Your task to perform on an android device: turn notification dots off Image 0: 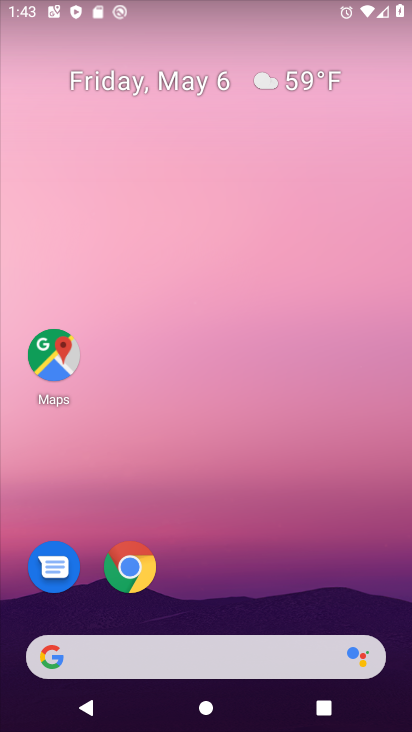
Step 0: drag from (253, 618) to (228, 29)
Your task to perform on an android device: turn notification dots off Image 1: 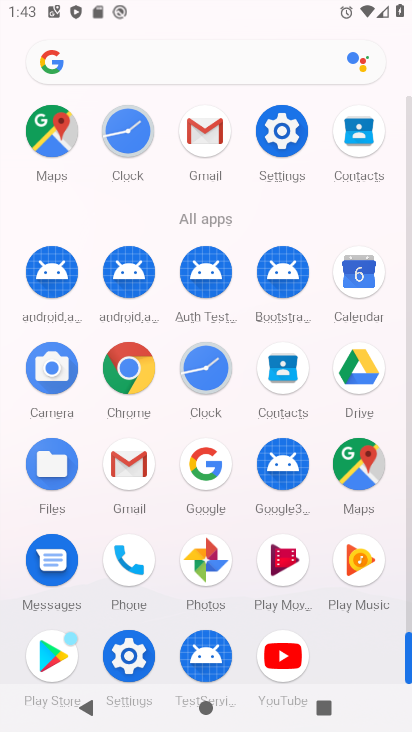
Step 1: click (113, 665)
Your task to perform on an android device: turn notification dots off Image 2: 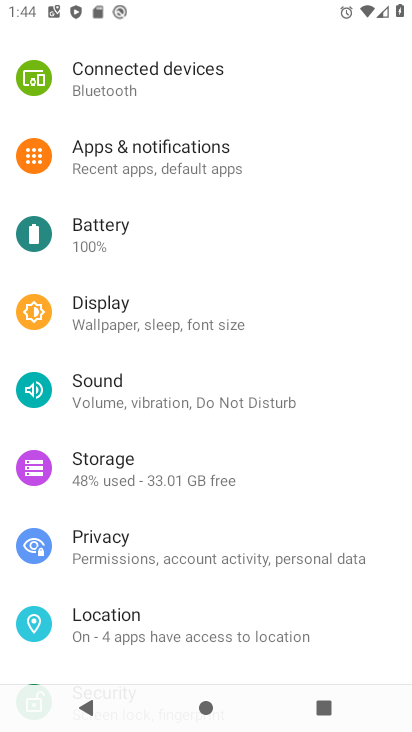
Step 2: drag from (271, 133) to (255, 415)
Your task to perform on an android device: turn notification dots off Image 3: 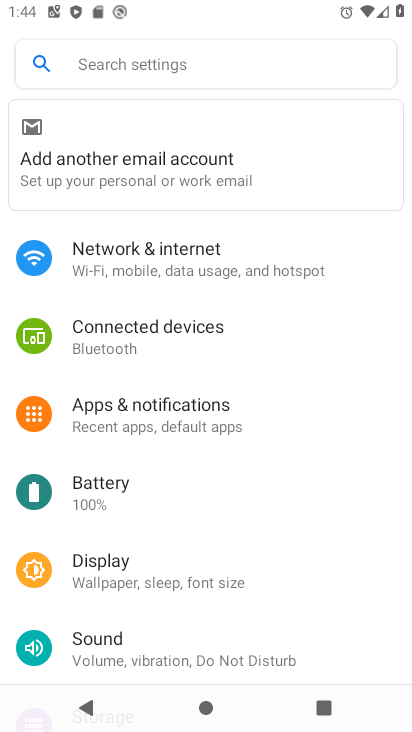
Step 3: click (200, 411)
Your task to perform on an android device: turn notification dots off Image 4: 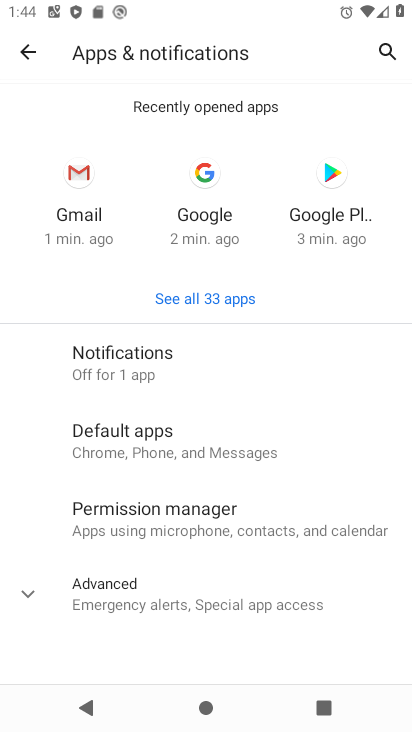
Step 4: click (148, 594)
Your task to perform on an android device: turn notification dots off Image 5: 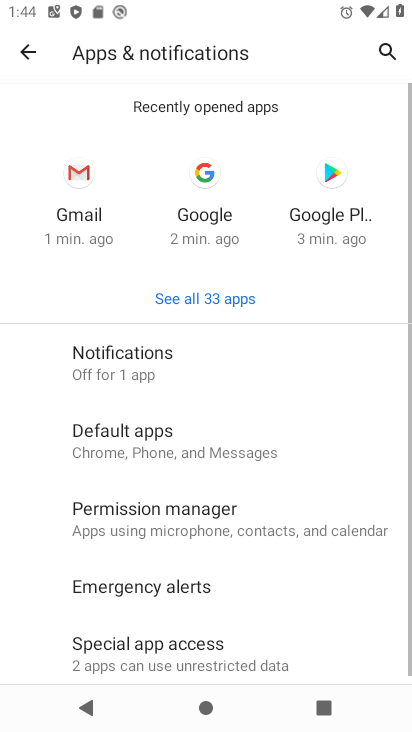
Step 5: drag from (148, 593) to (160, 318)
Your task to perform on an android device: turn notification dots off Image 6: 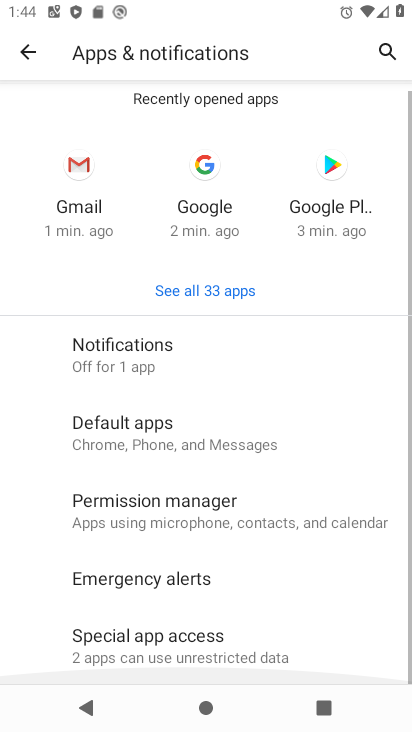
Step 6: click (159, 348)
Your task to perform on an android device: turn notification dots off Image 7: 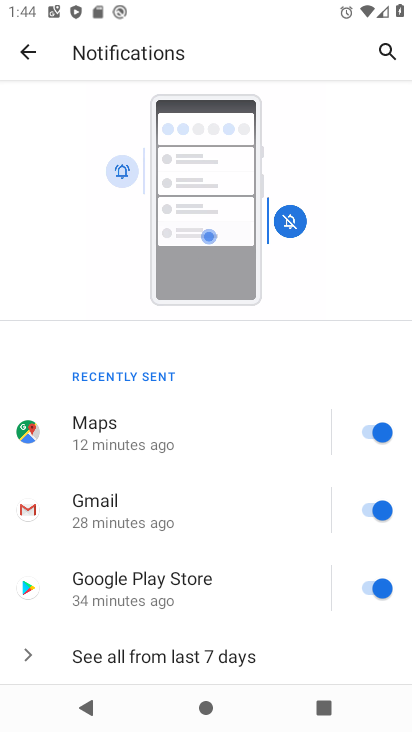
Step 7: drag from (187, 594) to (146, 128)
Your task to perform on an android device: turn notification dots off Image 8: 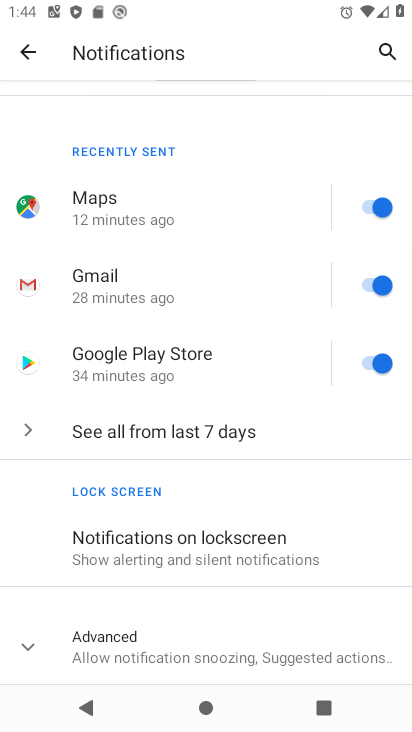
Step 8: click (141, 664)
Your task to perform on an android device: turn notification dots off Image 9: 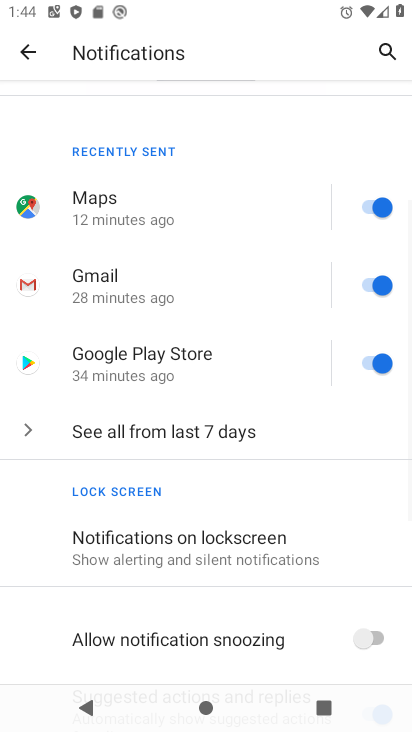
Step 9: drag from (195, 628) to (192, 211)
Your task to perform on an android device: turn notification dots off Image 10: 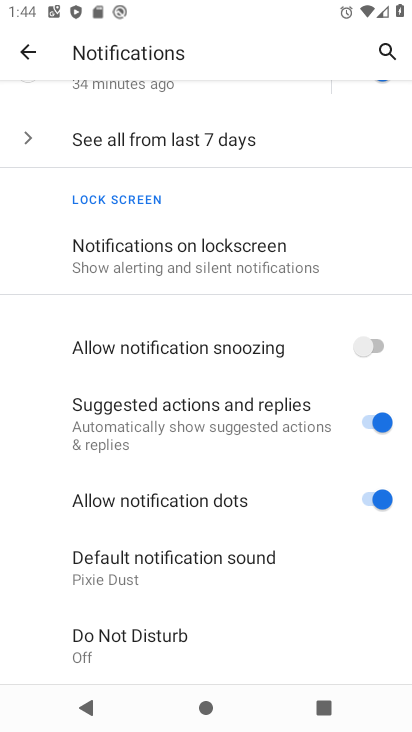
Step 10: click (368, 495)
Your task to perform on an android device: turn notification dots off Image 11: 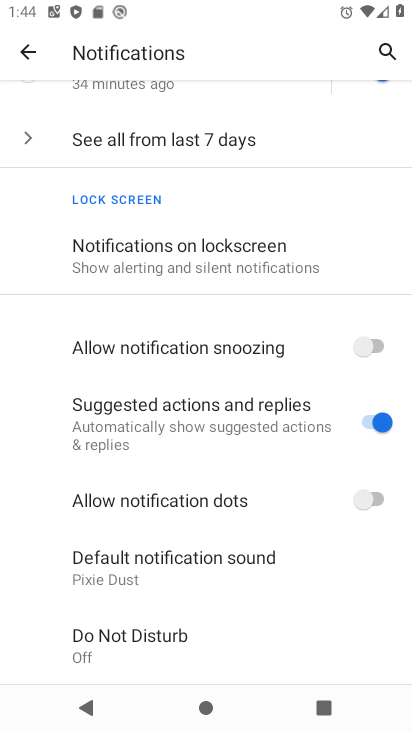
Step 11: task complete